Your task to perform on an android device: stop showing notifications on the lock screen Image 0: 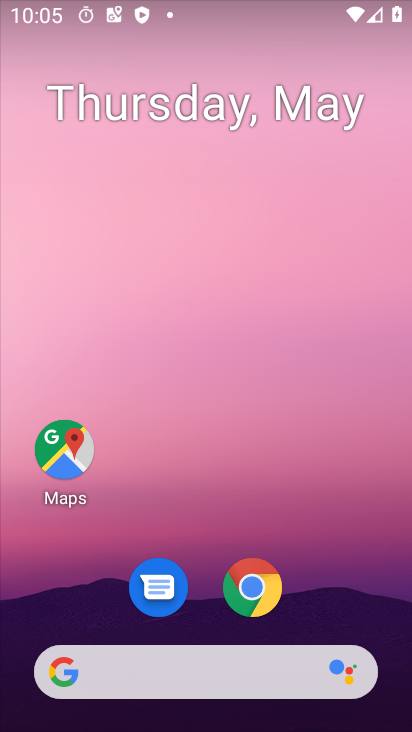
Step 0: drag from (383, 624) to (342, 16)
Your task to perform on an android device: stop showing notifications on the lock screen Image 1: 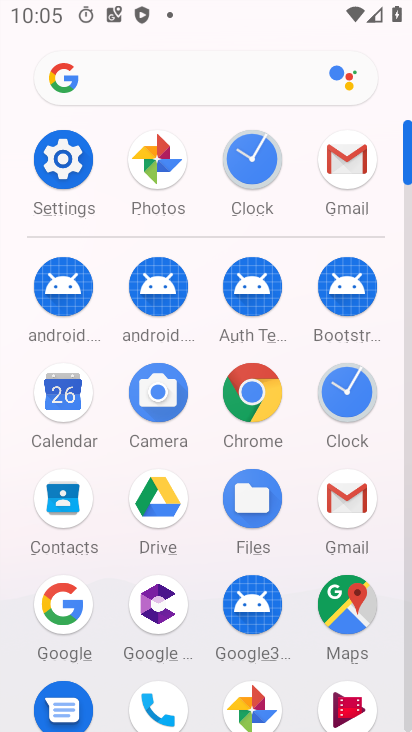
Step 1: click (61, 164)
Your task to perform on an android device: stop showing notifications on the lock screen Image 2: 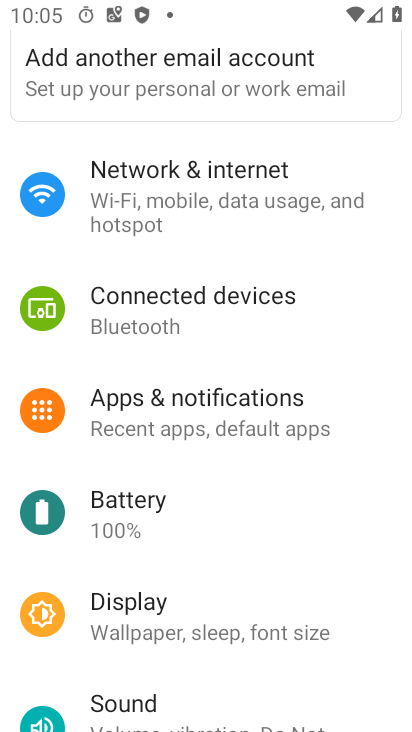
Step 2: click (190, 426)
Your task to perform on an android device: stop showing notifications on the lock screen Image 3: 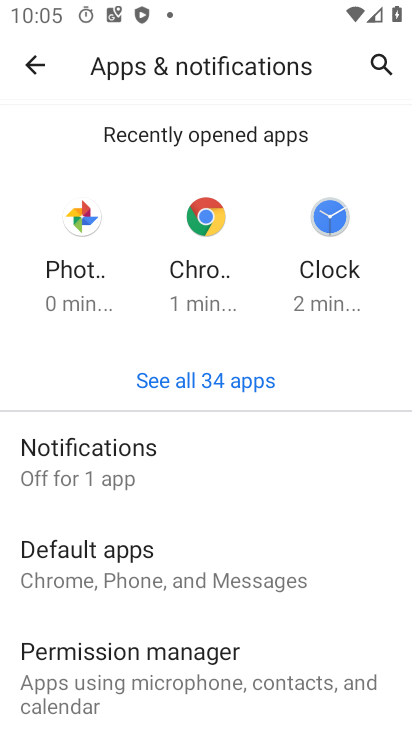
Step 3: click (121, 465)
Your task to perform on an android device: stop showing notifications on the lock screen Image 4: 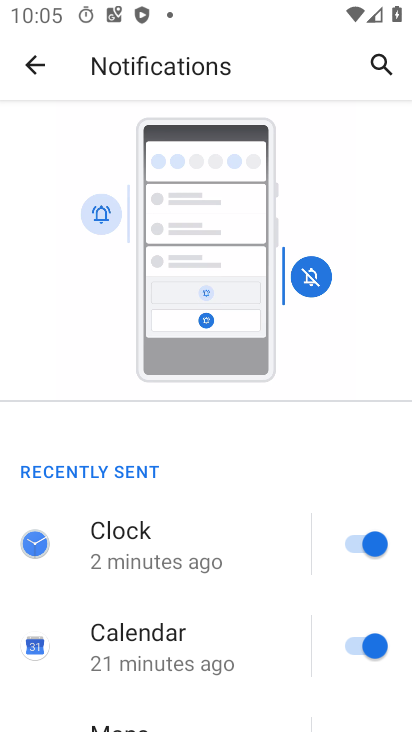
Step 4: drag from (136, 642) to (140, 197)
Your task to perform on an android device: stop showing notifications on the lock screen Image 5: 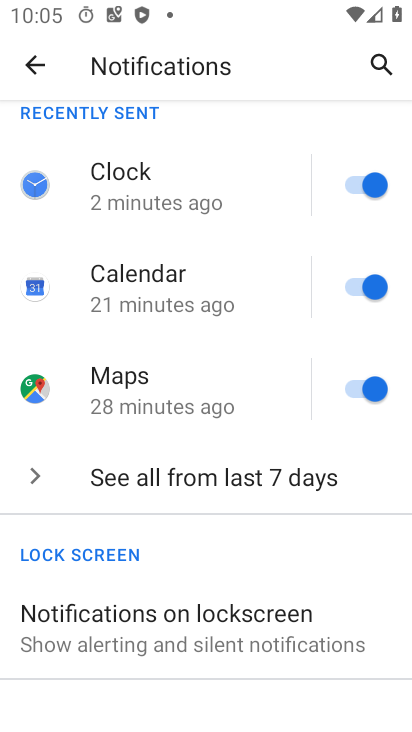
Step 5: click (114, 616)
Your task to perform on an android device: stop showing notifications on the lock screen Image 6: 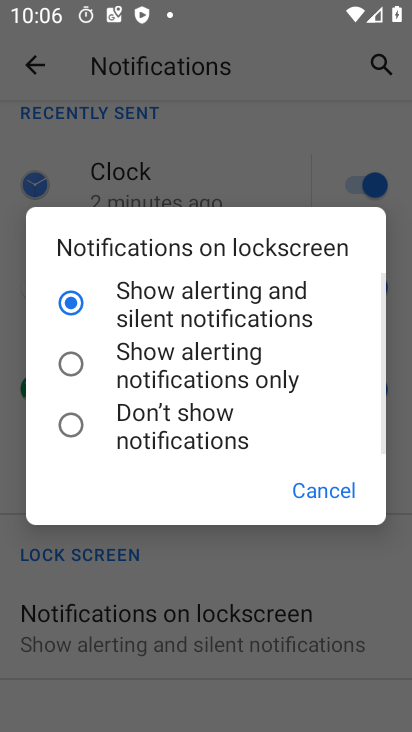
Step 6: click (72, 421)
Your task to perform on an android device: stop showing notifications on the lock screen Image 7: 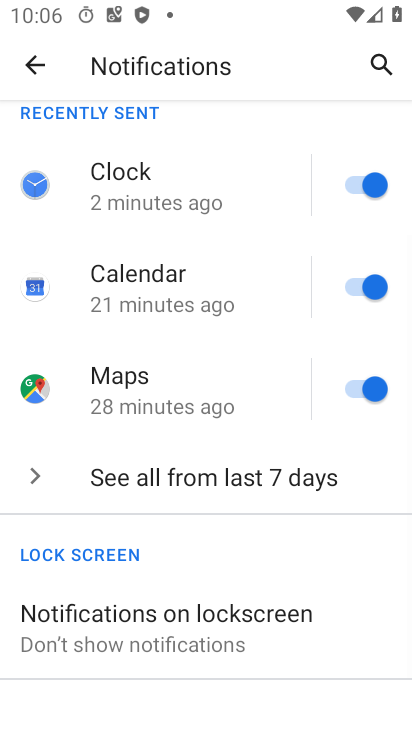
Step 7: task complete